Your task to perform on an android device: Open a new window in Chrome Image 0: 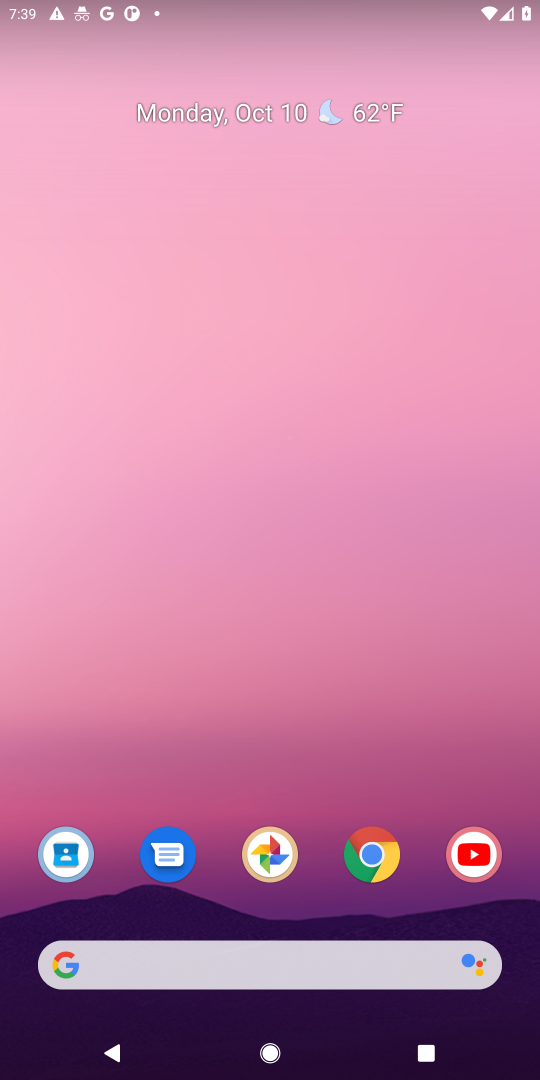
Step 0: drag from (489, 73) to (389, 66)
Your task to perform on an android device: Open a new window in Chrome Image 1: 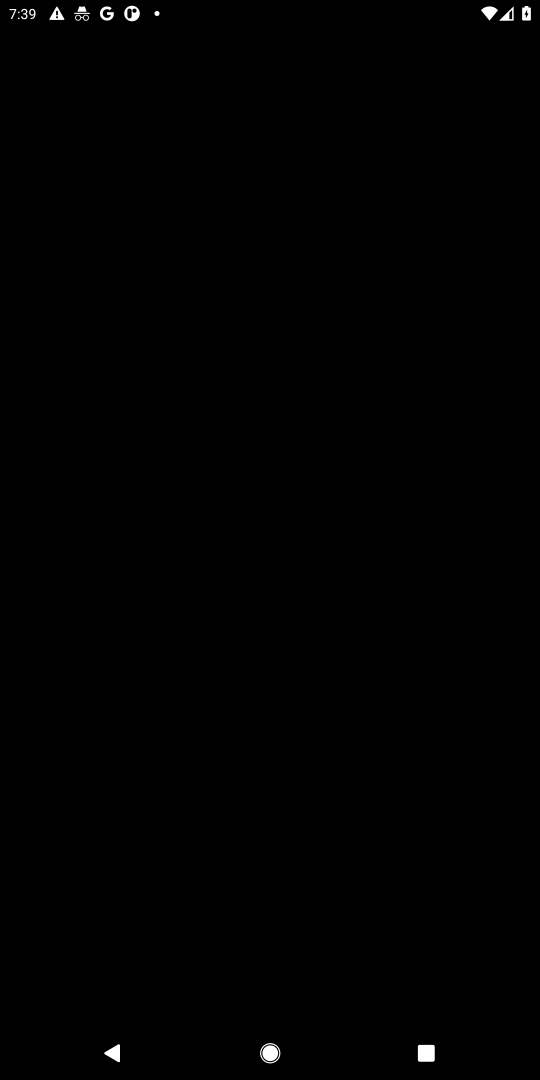
Step 1: press home button
Your task to perform on an android device: Open a new window in Chrome Image 2: 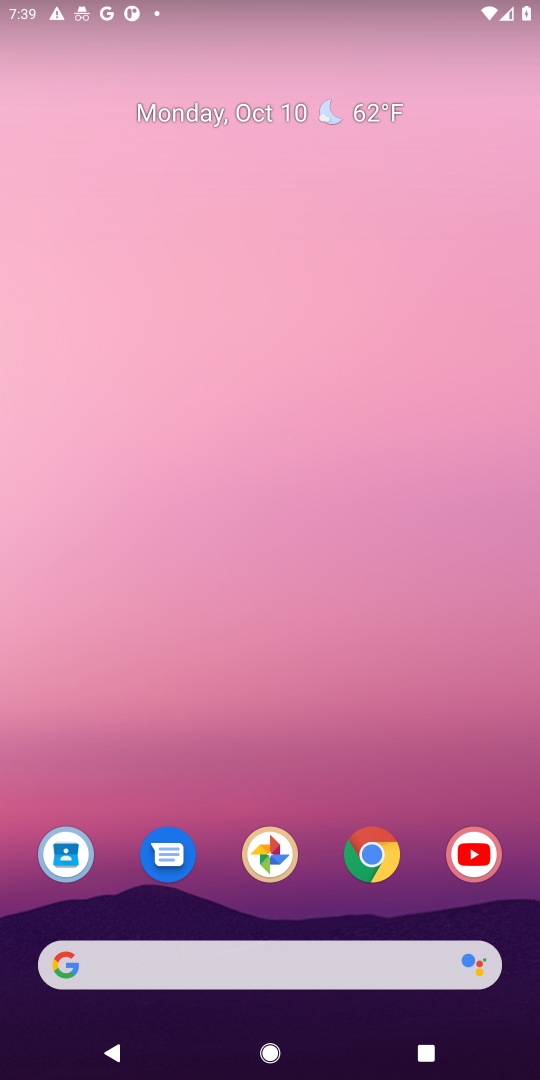
Step 2: click (375, 849)
Your task to perform on an android device: Open a new window in Chrome Image 3: 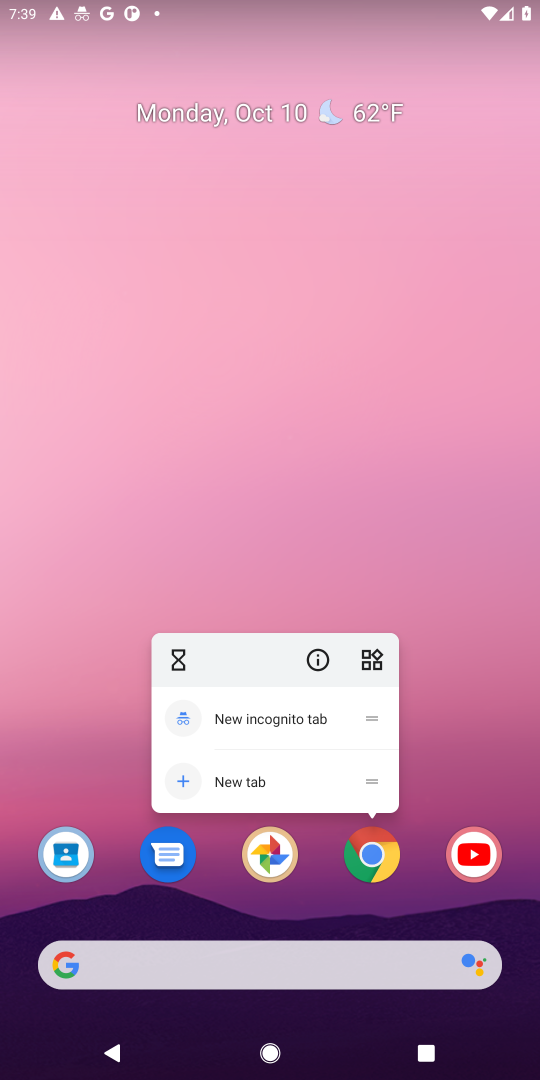
Step 3: click (375, 849)
Your task to perform on an android device: Open a new window in Chrome Image 4: 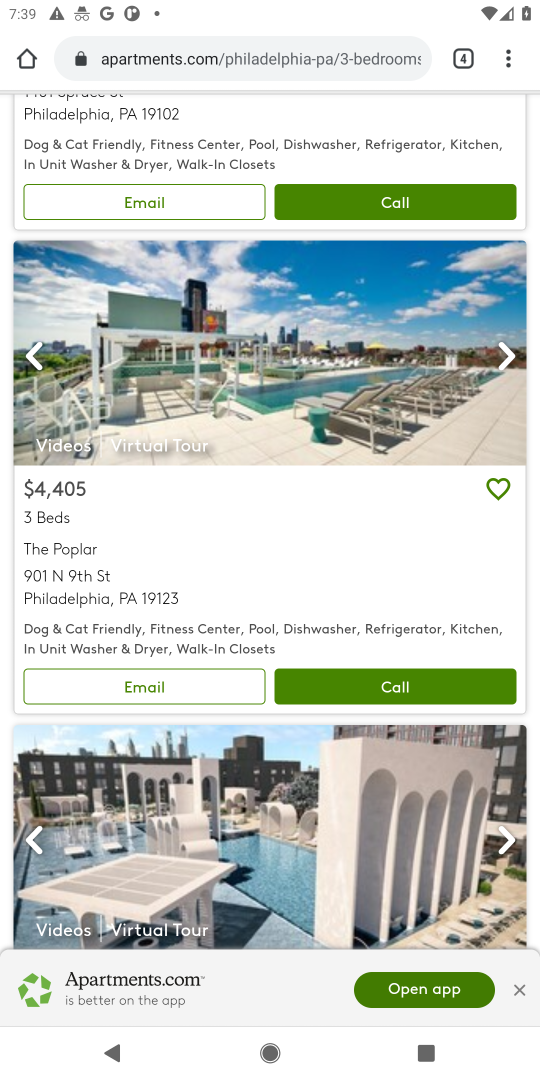
Step 4: task complete